Your task to perform on an android device: open wifi settings Image 0: 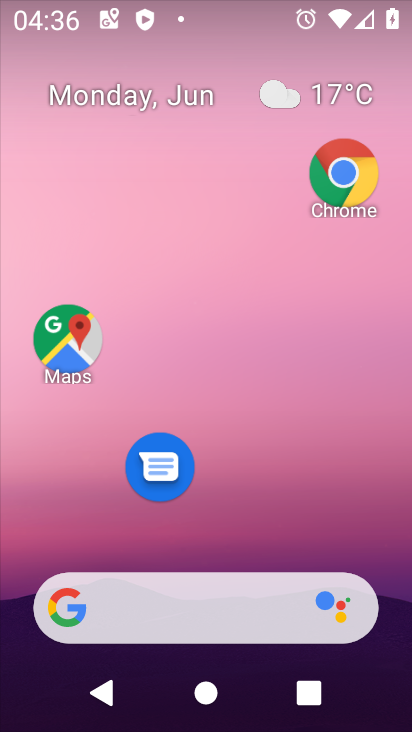
Step 0: drag from (243, 539) to (253, 57)
Your task to perform on an android device: open wifi settings Image 1: 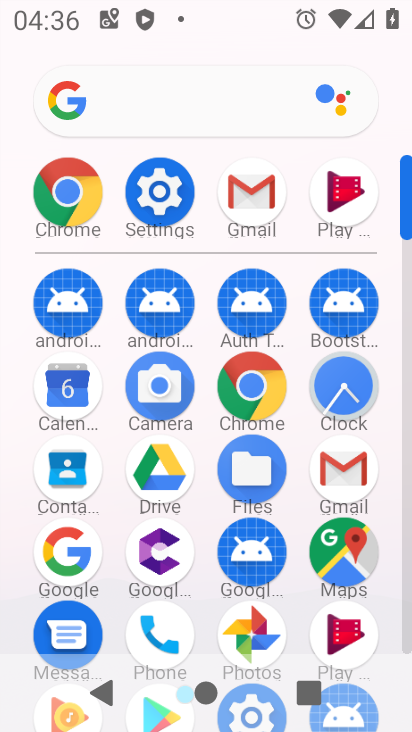
Step 1: click (165, 212)
Your task to perform on an android device: open wifi settings Image 2: 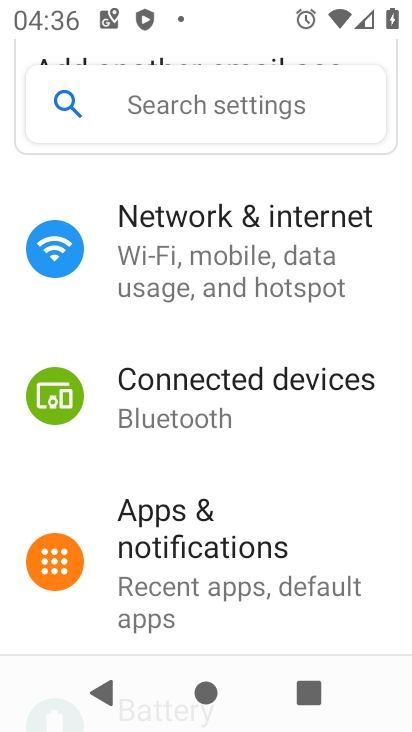
Step 2: drag from (247, 245) to (239, 467)
Your task to perform on an android device: open wifi settings Image 3: 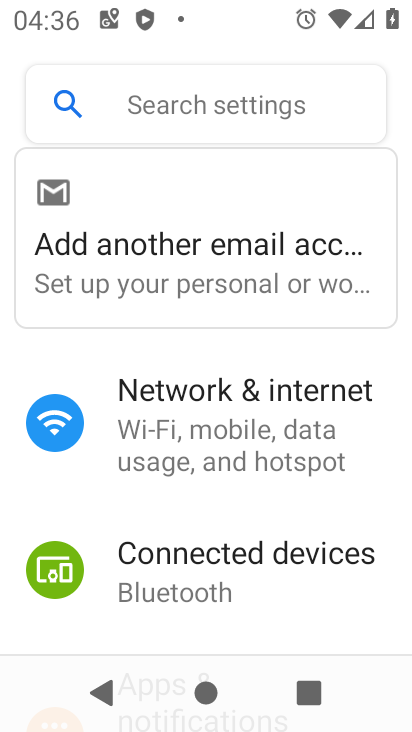
Step 3: click (220, 431)
Your task to perform on an android device: open wifi settings Image 4: 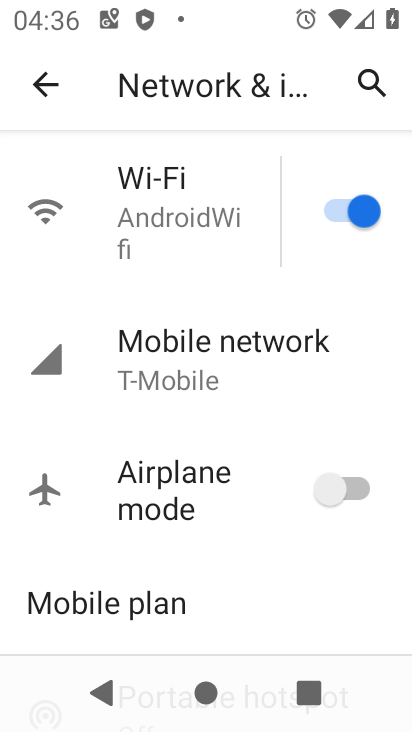
Step 4: click (176, 218)
Your task to perform on an android device: open wifi settings Image 5: 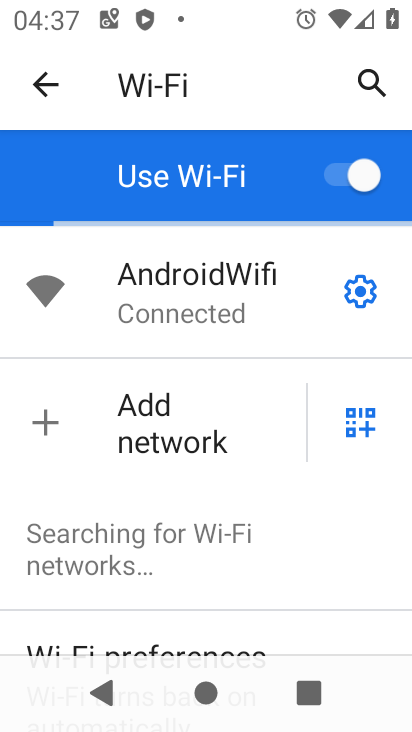
Step 5: task complete